Your task to perform on an android device: Open Google Maps and go to "Timeline" Image 0: 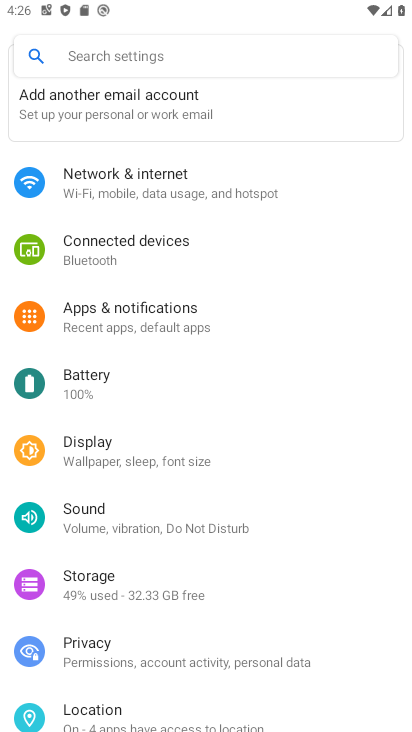
Step 0: press home button
Your task to perform on an android device: Open Google Maps and go to "Timeline" Image 1: 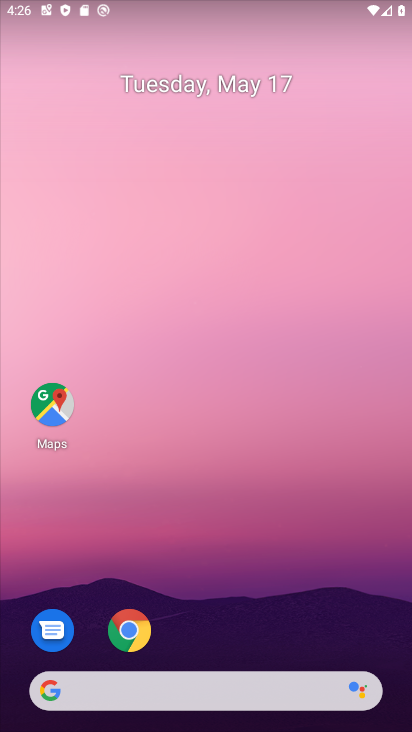
Step 1: drag from (242, 718) to (245, 371)
Your task to perform on an android device: Open Google Maps and go to "Timeline" Image 2: 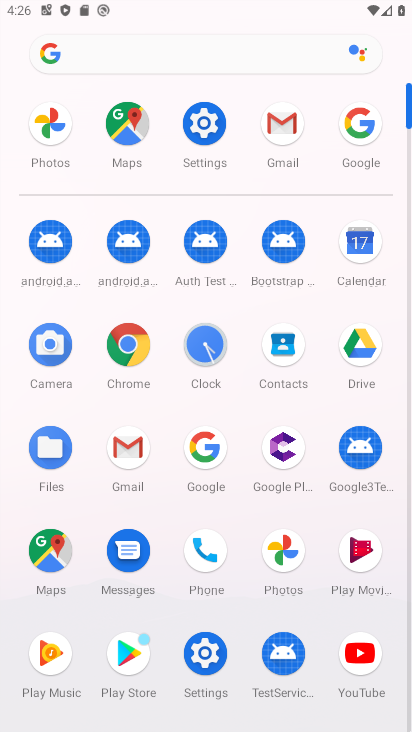
Step 2: click (49, 554)
Your task to perform on an android device: Open Google Maps and go to "Timeline" Image 3: 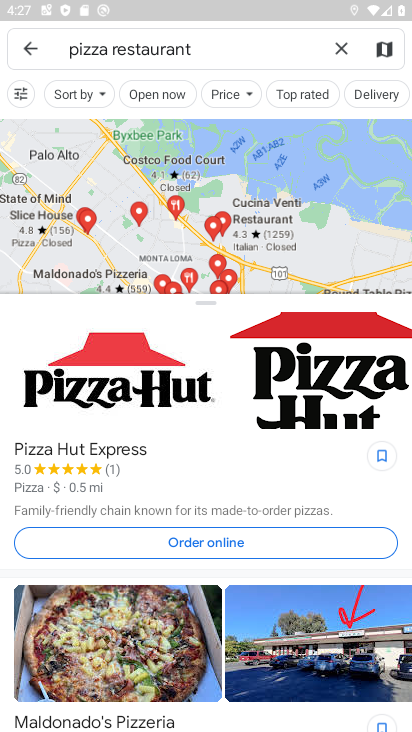
Step 3: click (26, 50)
Your task to perform on an android device: Open Google Maps and go to "Timeline" Image 4: 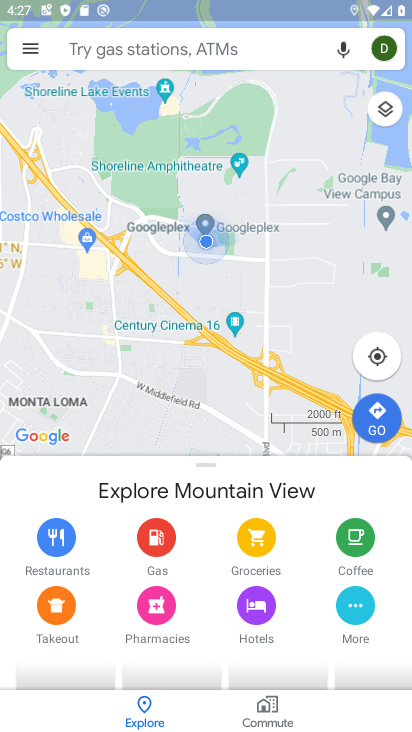
Step 4: click (29, 50)
Your task to perform on an android device: Open Google Maps and go to "Timeline" Image 5: 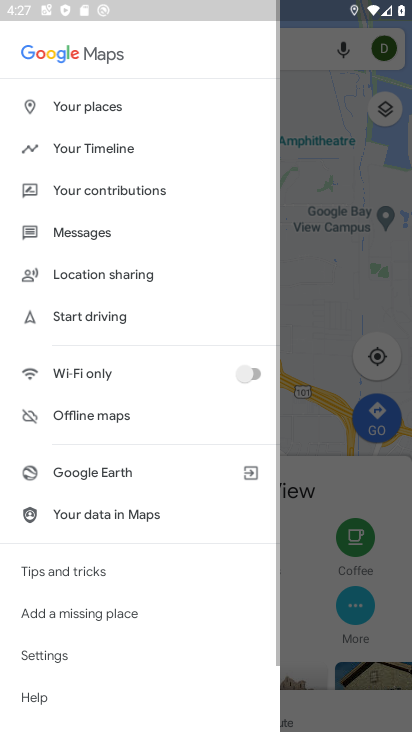
Step 5: click (28, 50)
Your task to perform on an android device: Open Google Maps and go to "Timeline" Image 6: 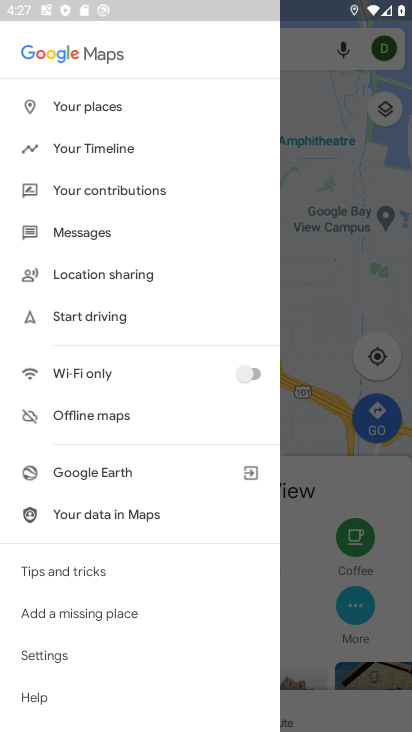
Step 6: click (96, 145)
Your task to perform on an android device: Open Google Maps and go to "Timeline" Image 7: 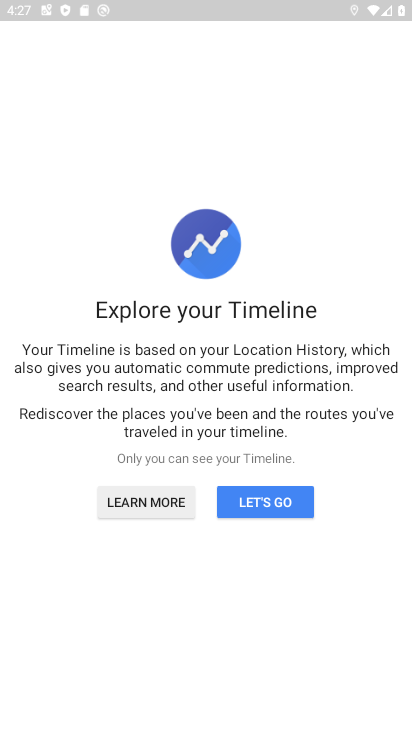
Step 7: click (240, 502)
Your task to perform on an android device: Open Google Maps and go to "Timeline" Image 8: 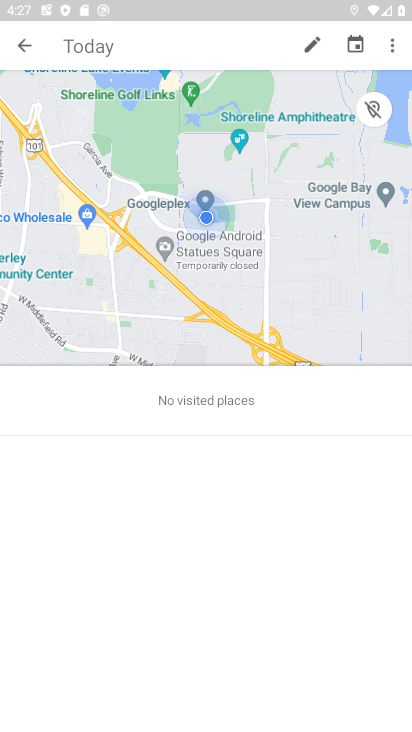
Step 8: task complete